Your task to perform on an android device: search for starred emails in the gmail app Image 0: 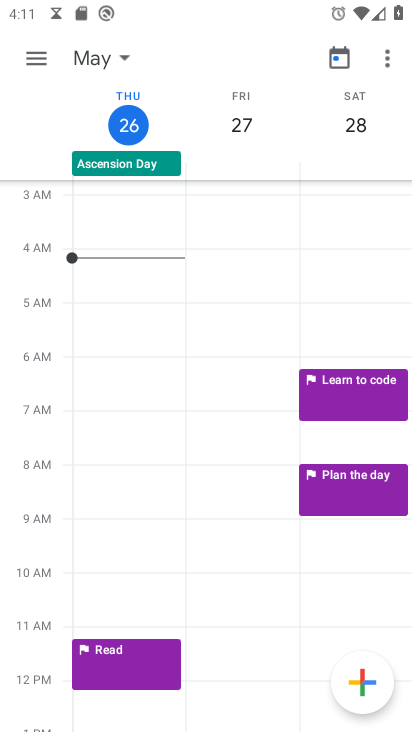
Step 0: press home button
Your task to perform on an android device: search for starred emails in the gmail app Image 1: 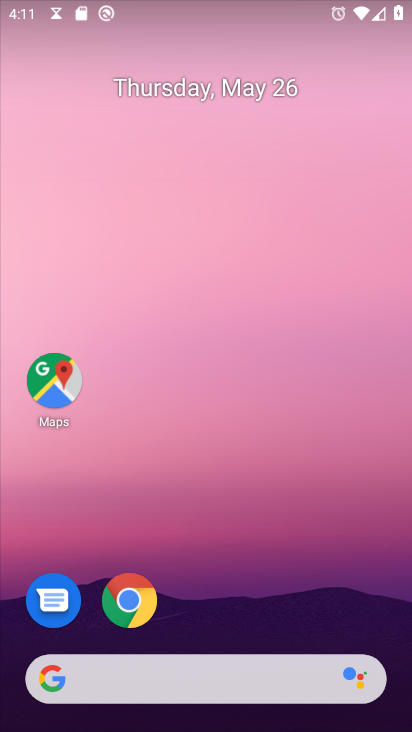
Step 1: drag from (217, 632) to (302, 194)
Your task to perform on an android device: search for starred emails in the gmail app Image 2: 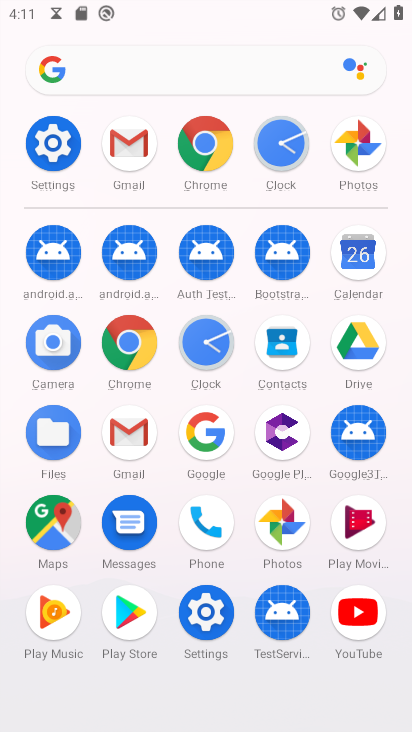
Step 2: click (132, 433)
Your task to perform on an android device: search for starred emails in the gmail app Image 3: 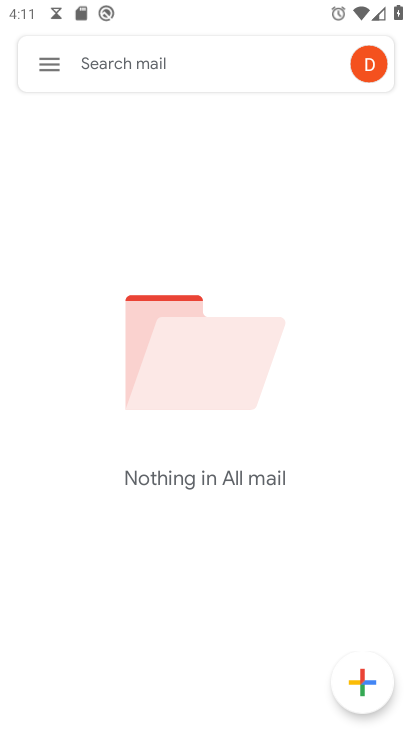
Step 3: click (55, 58)
Your task to perform on an android device: search for starred emails in the gmail app Image 4: 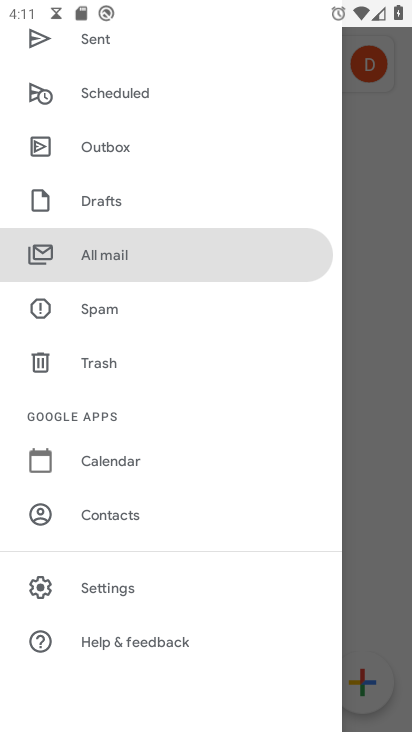
Step 4: drag from (126, 347) to (101, 568)
Your task to perform on an android device: search for starred emails in the gmail app Image 5: 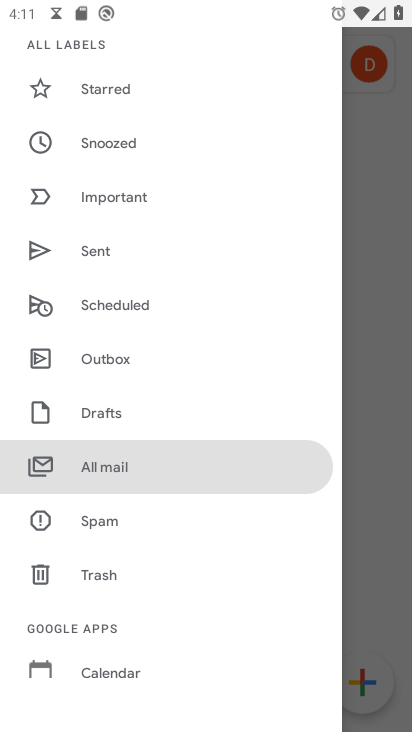
Step 5: drag from (140, 219) to (143, 353)
Your task to perform on an android device: search for starred emails in the gmail app Image 6: 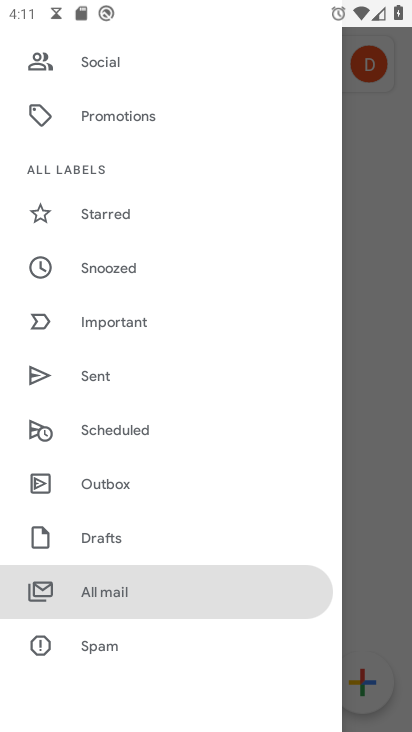
Step 6: click (108, 218)
Your task to perform on an android device: search for starred emails in the gmail app Image 7: 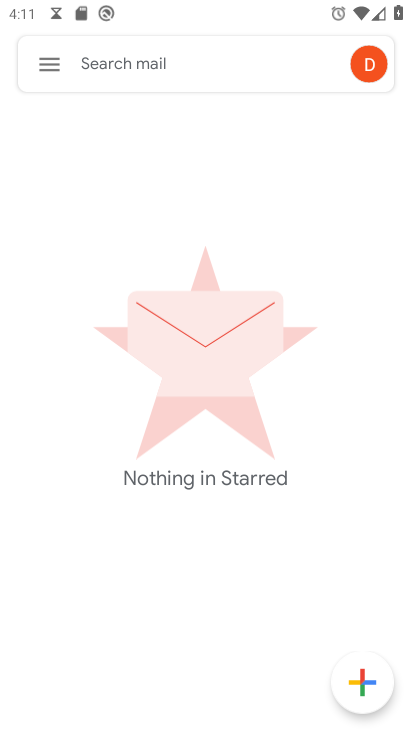
Step 7: task complete